Your task to perform on an android device: Go to Android settings Image 0: 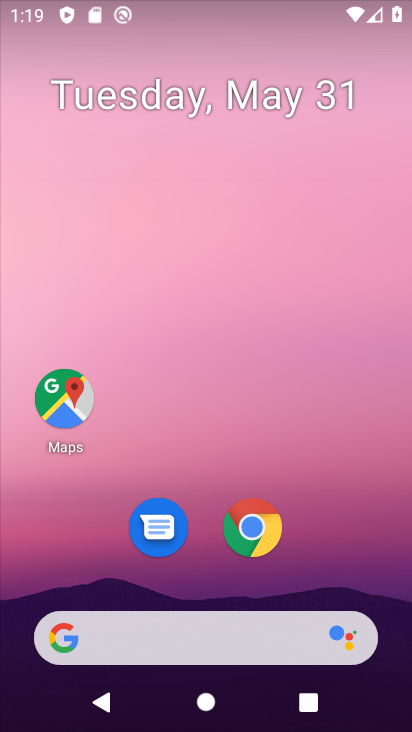
Step 0: drag from (341, 536) to (108, 4)
Your task to perform on an android device: Go to Android settings Image 1: 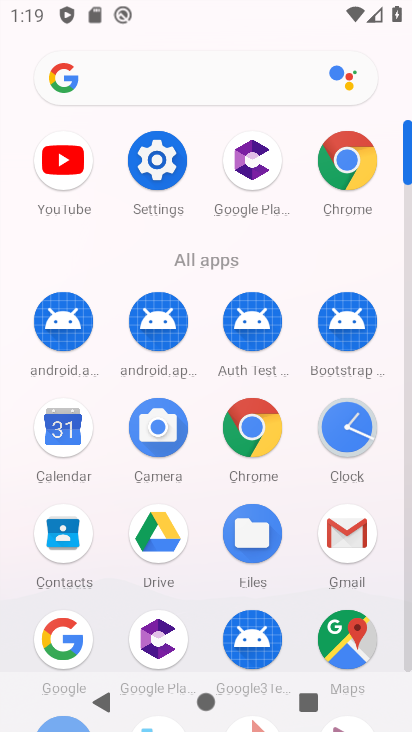
Step 1: click (158, 162)
Your task to perform on an android device: Go to Android settings Image 2: 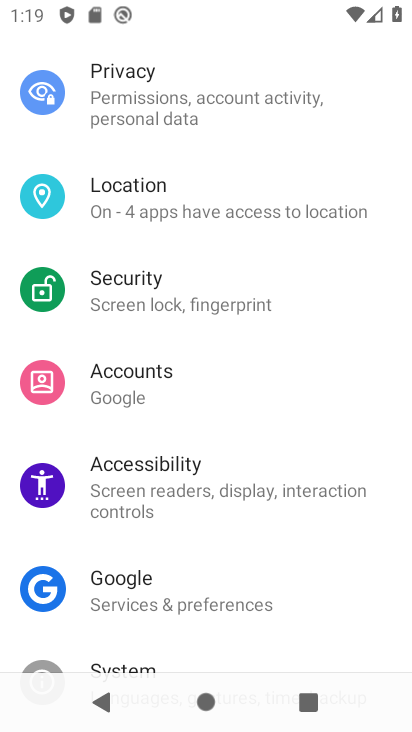
Step 2: task complete